Your task to perform on an android device: move a message to another label in the gmail app Image 0: 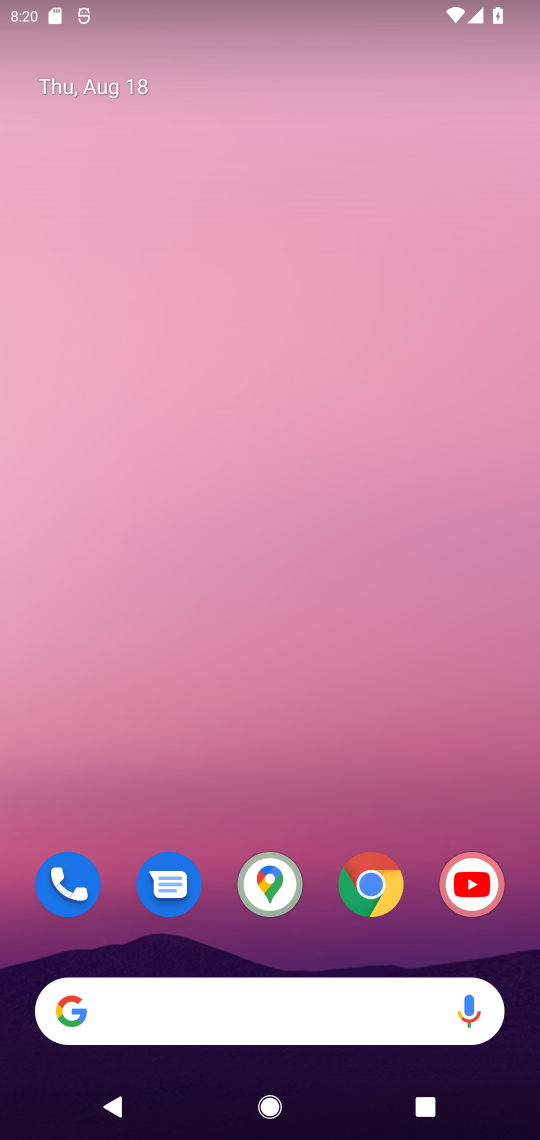
Step 0: click (339, 263)
Your task to perform on an android device: move a message to another label in the gmail app Image 1: 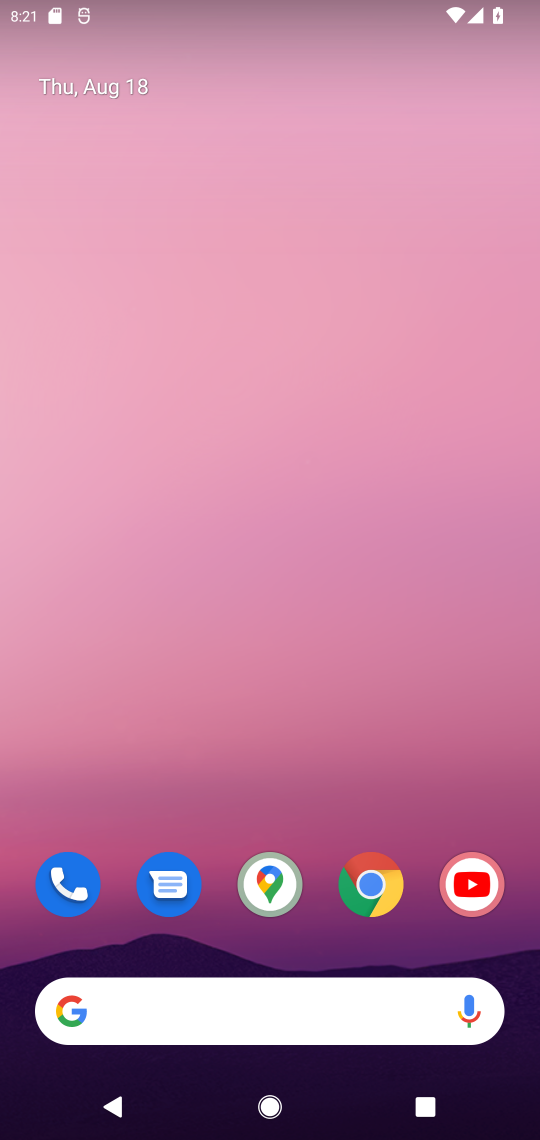
Step 1: drag from (248, 941) to (509, 5)
Your task to perform on an android device: move a message to another label in the gmail app Image 2: 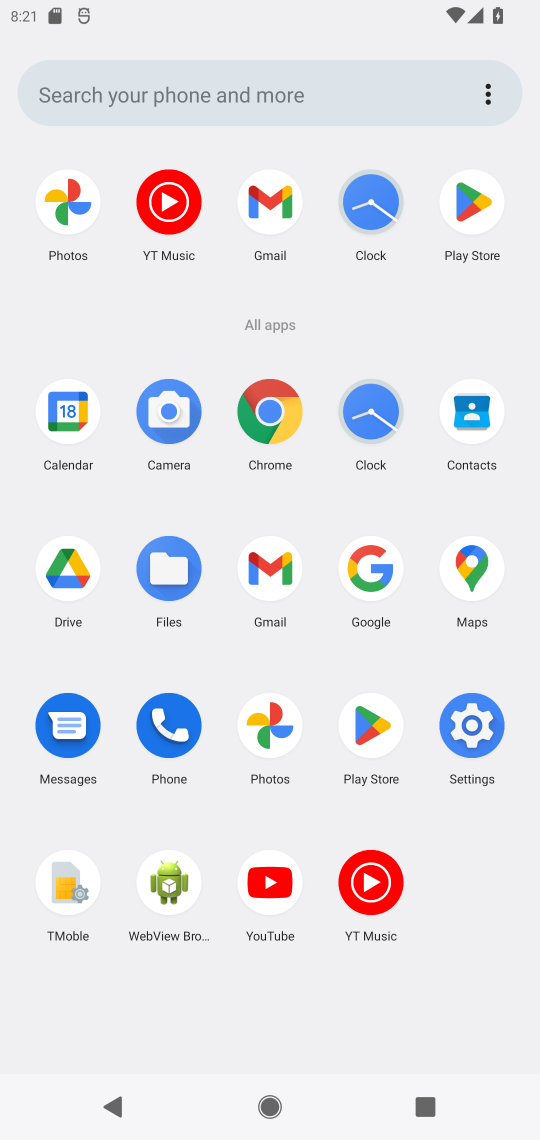
Step 2: click (265, 183)
Your task to perform on an android device: move a message to another label in the gmail app Image 3: 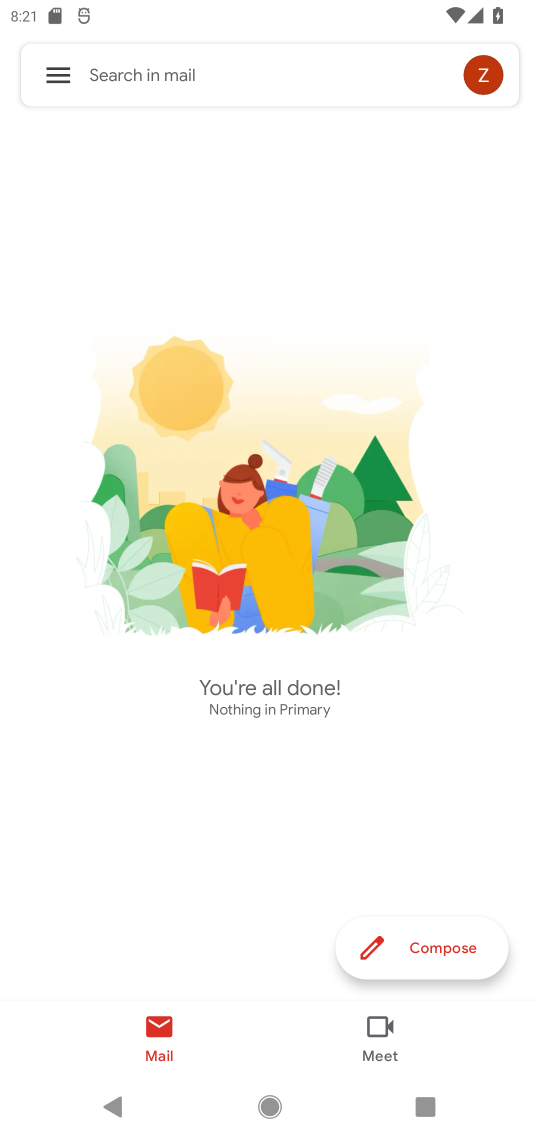
Step 3: task complete